Your task to perform on an android device: check storage Image 0: 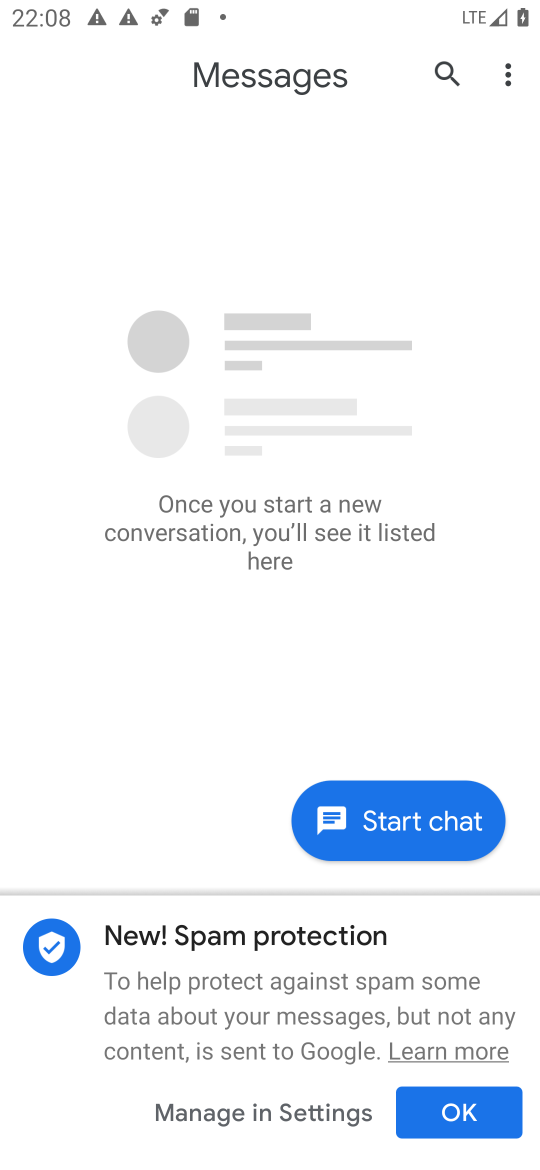
Step 0: press home button
Your task to perform on an android device: check storage Image 1: 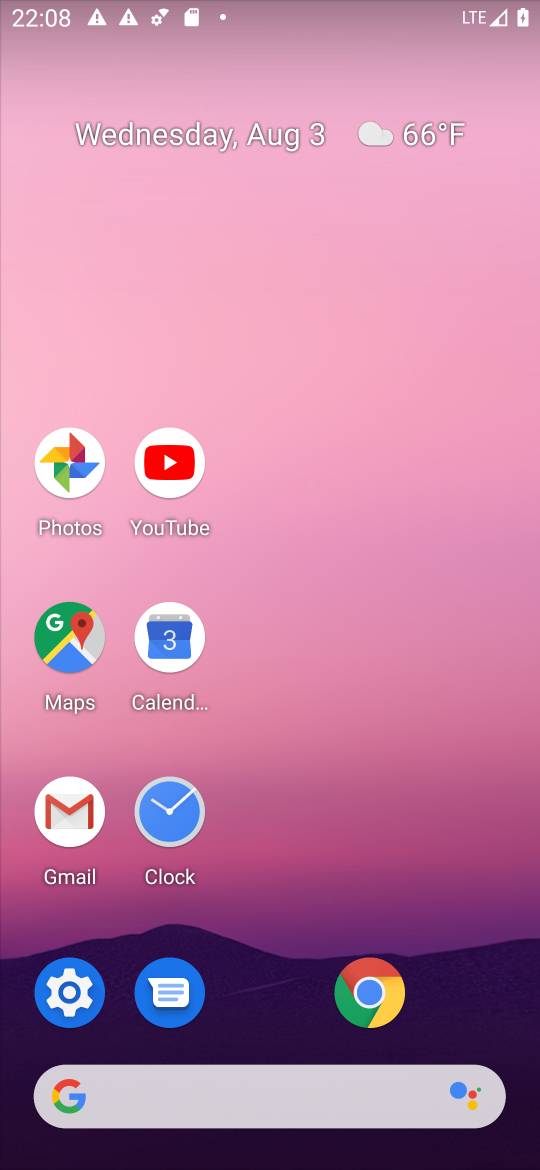
Step 1: click (72, 994)
Your task to perform on an android device: check storage Image 2: 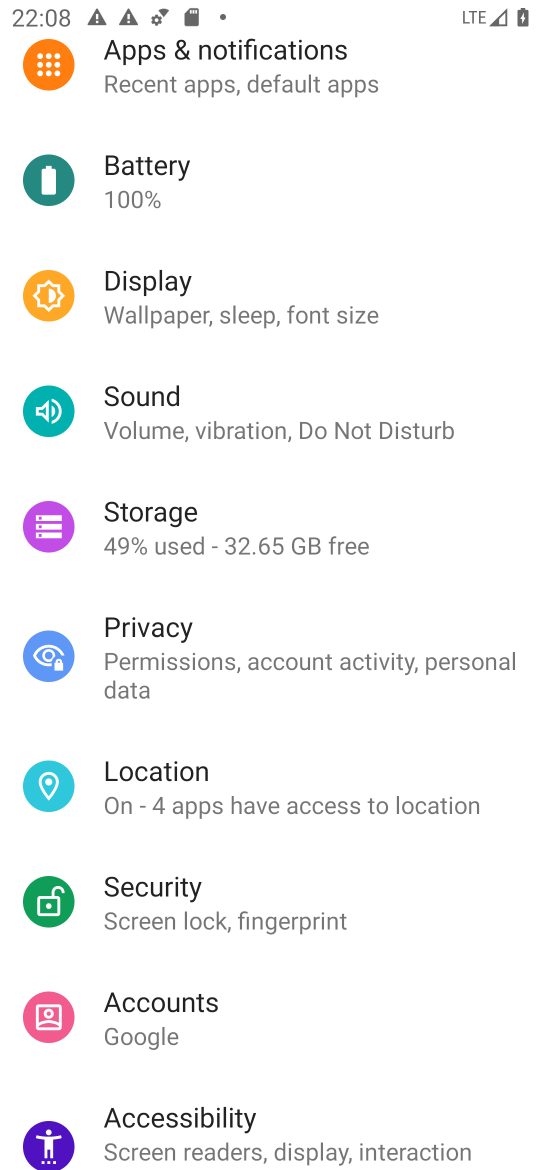
Step 2: click (140, 517)
Your task to perform on an android device: check storage Image 3: 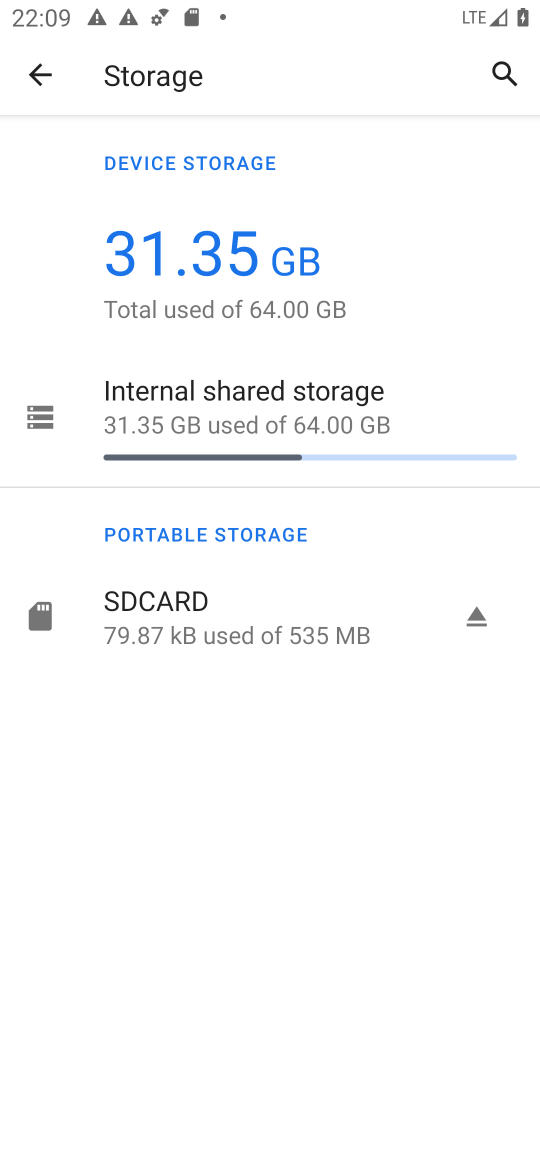
Step 3: task complete